Your task to perform on an android device: find which apps use the phone's location Image 0: 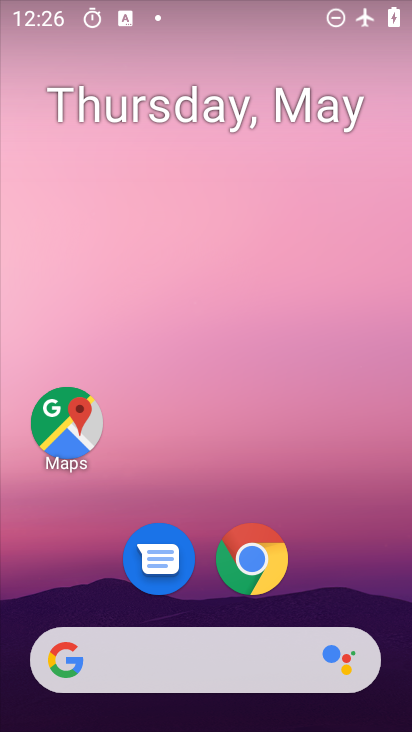
Step 0: drag from (252, 639) to (262, 3)
Your task to perform on an android device: find which apps use the phone's location Image 1: 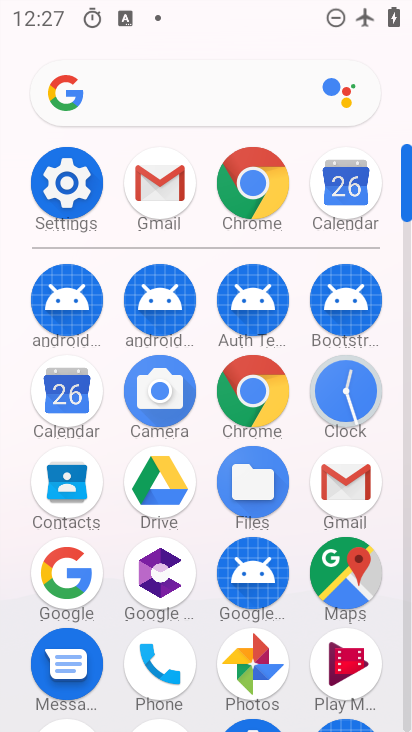
Step 1: click (79, 196)
Your task to perform on an android device: find which apps use the phone's location Image 2: 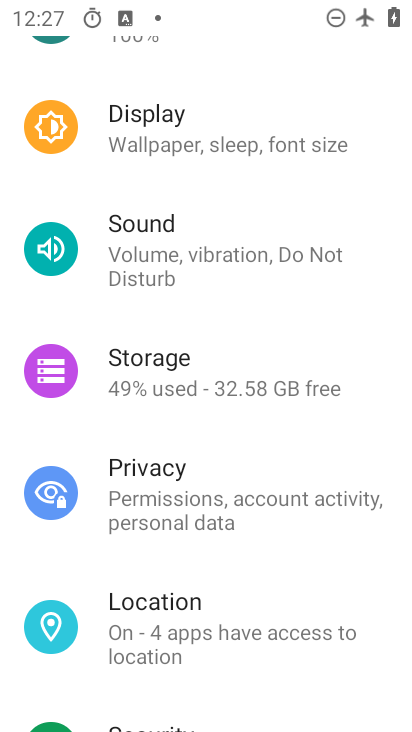
Step 2: click (188, 624)
Your task to perform on an android device: find which apps use the phone's location Image 3: 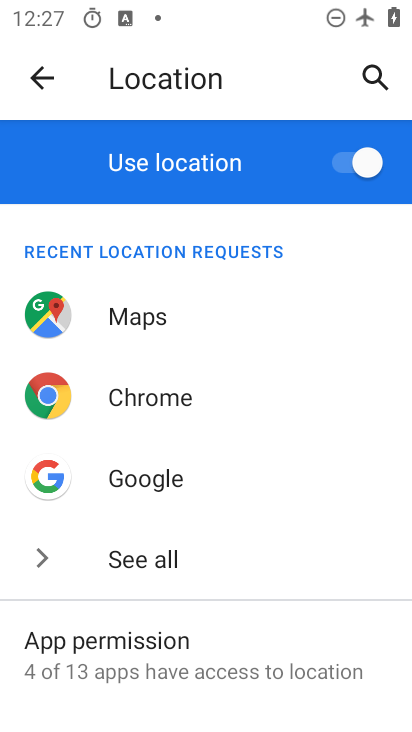
Step 3: click (169, 660)
Your task to perform on an android device: find which apps use the phone's location Image 4: 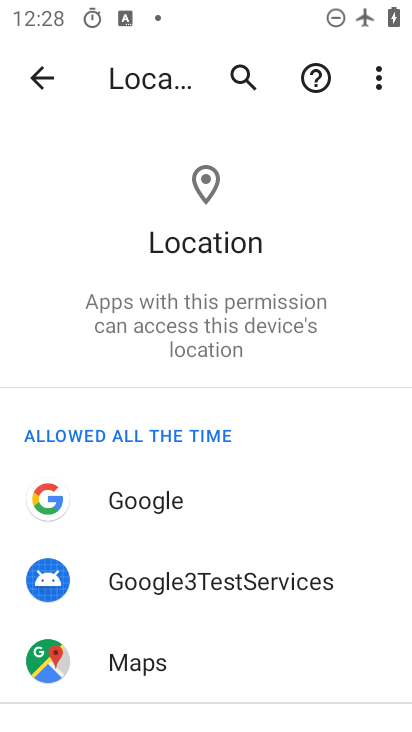
Step 4: task complete